Your task to perform on an android device: allow cookies in the chrome app Image 0: 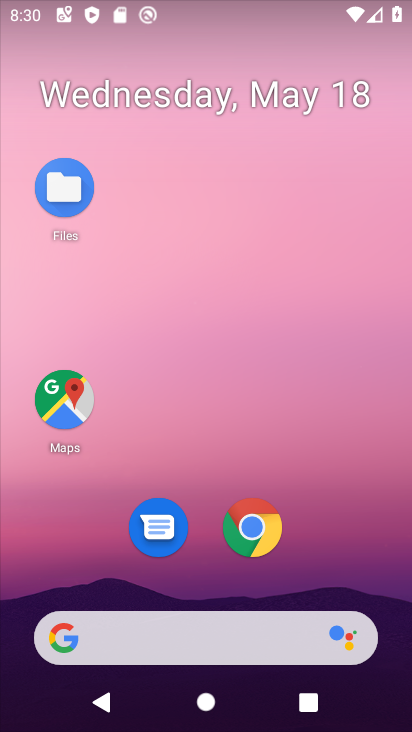
Step 0: drag from (375, 694) to (146, 240)
Your task to perform on an android device: allow cookies in the chrome app Image 1: 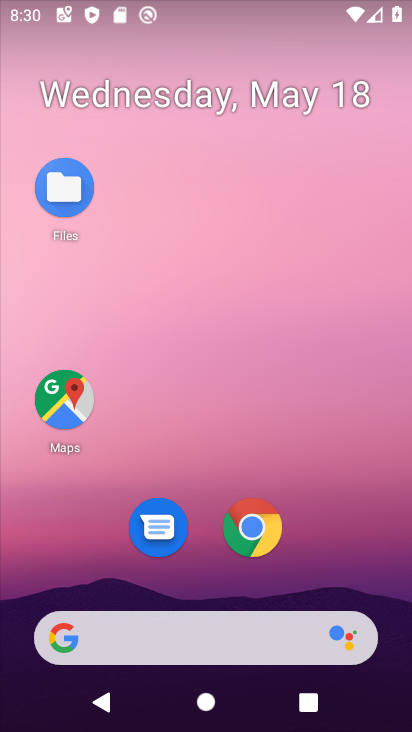
Step 1: drag from (360, 651) to (206, 6)
Your task to perform on an android device: allow cookies in the chrome app Image 2: 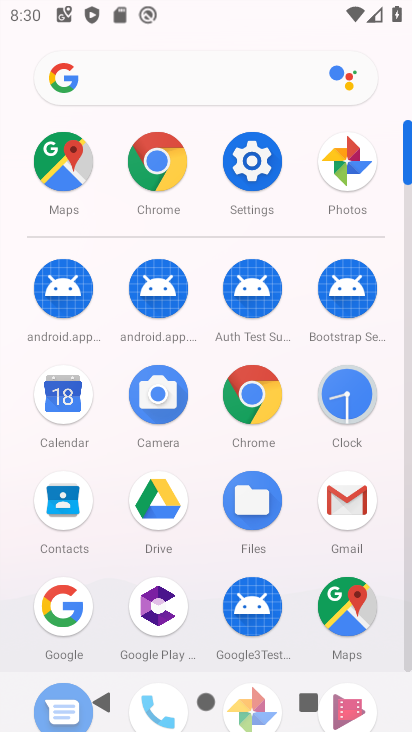
Step 2: click (150, 163)
Your task to perform on an android device: allow cookies in the chrome app Image 3: 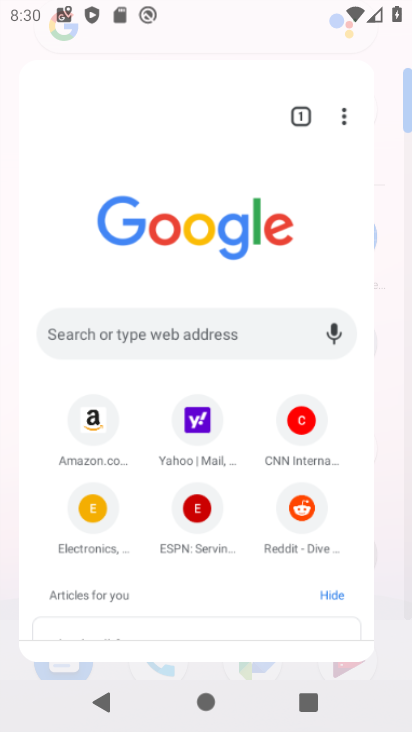
Step 3: click (151, 162)
Your task to perform on an android device: allow cookies in the chrome app Image 4: 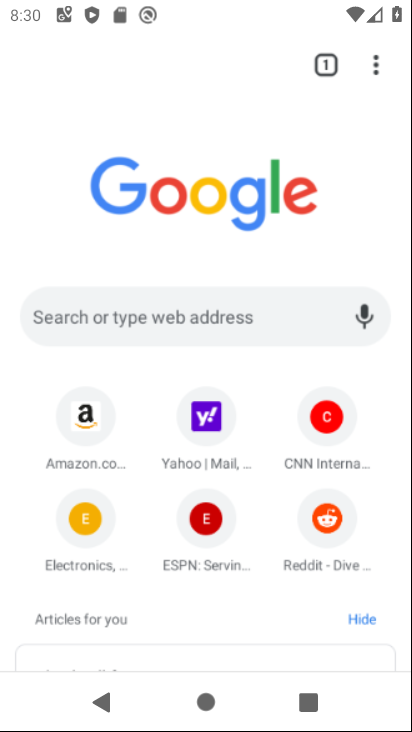
Step 4: click (152, 162)
Your task to perform on an android device: allow cookies in the chrome app Image 5: 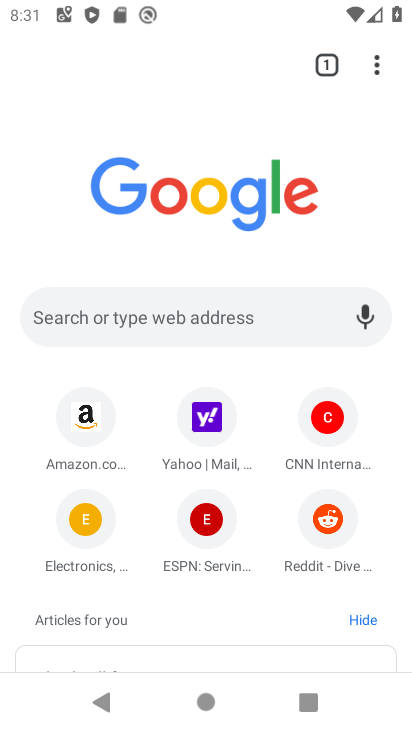
Step 5: click (375, 61)
Your task to perform on an android device: allow cookies in the chrome app Image 6: 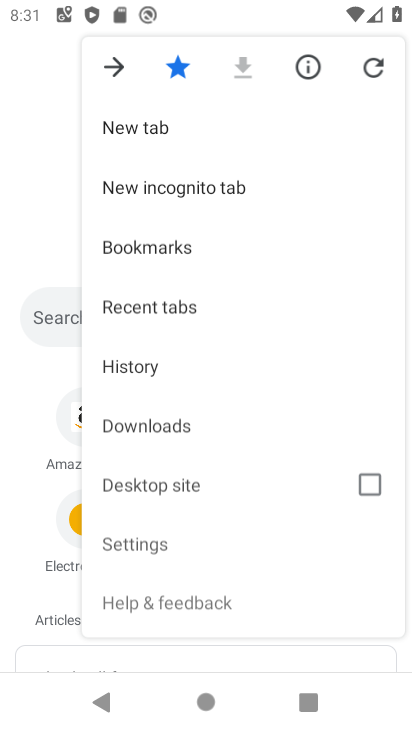
Step 6: click (375, 61)
Your task to perform on an android device: allow cookies in the chrome app Image 7: 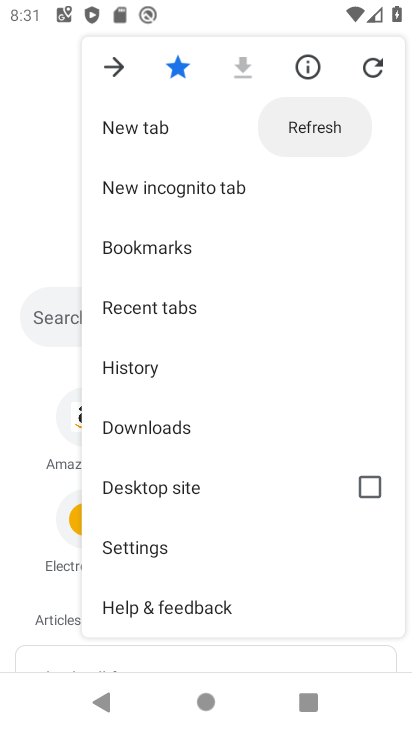
Step 7: click (376, 56)
Your task to perform on an android device: allow cookies in the chrome app Image 8: 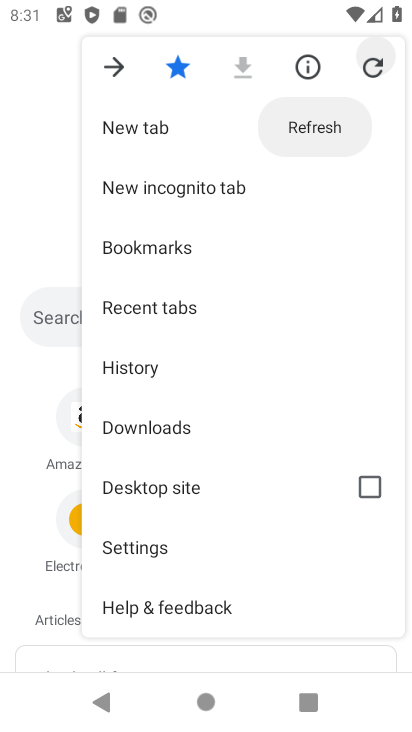
Step 8: drag from (376, 55) to (189, 524)
Your task to perform on an android device: allow cookies in the chrome app Image 9: 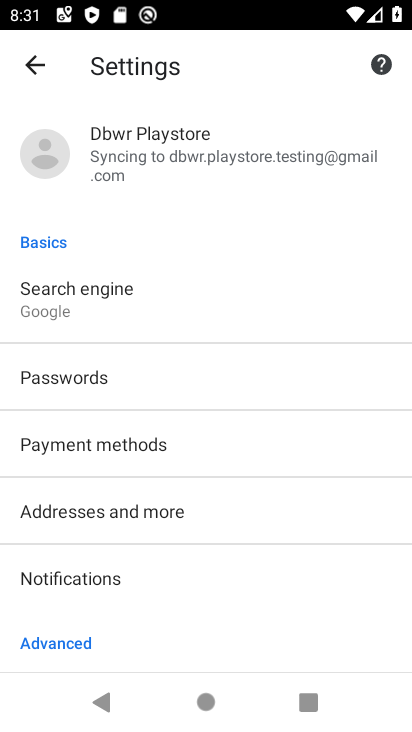
Step 9: drag from (124, 461) to (152, 201)
Your task to perform on an android device: allow cookies in the chrome app Image 10: 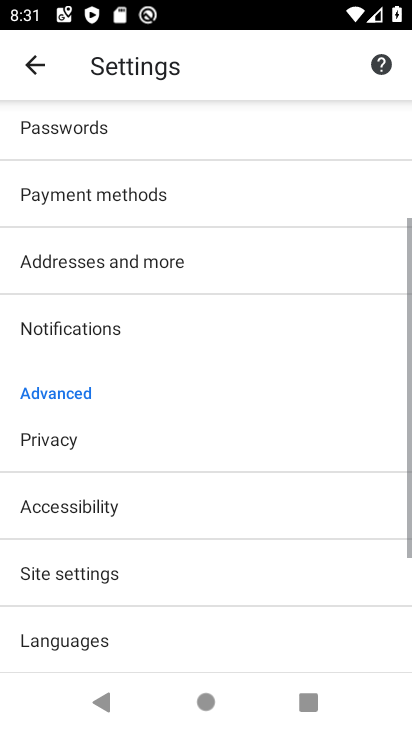
Step 10: drag from (149, 418) to (188, 93)
Your task to perform on an android device: allow cookies in the chrome app Image 11: 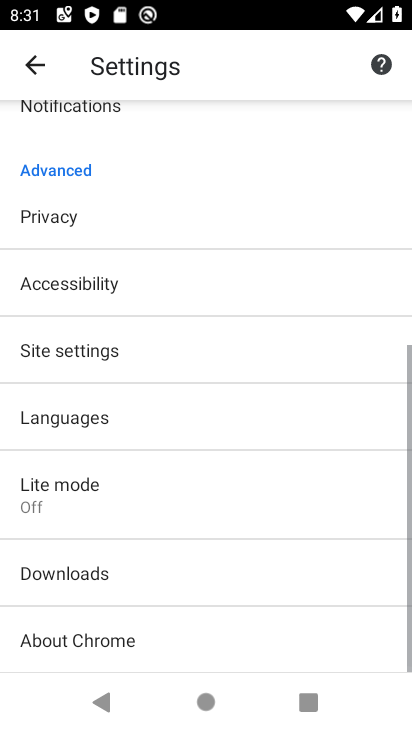
Step 11: drag from (169, 429) to (205, 198)
Your task to perform on an android device: allow cookies in the chrome app Image 12: 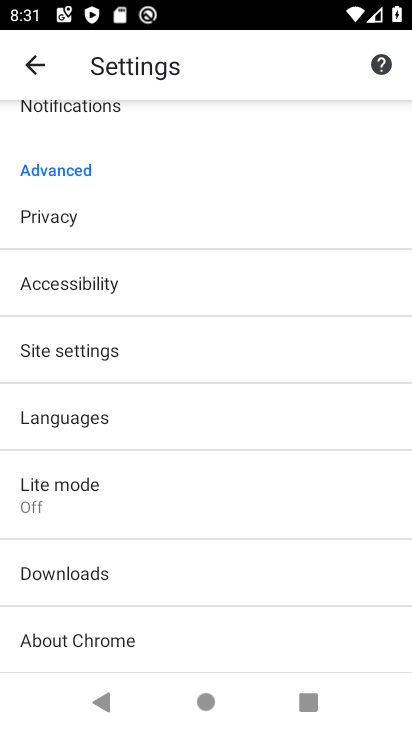
Step 12: click (69, 347)
Your task to perform on an android device: allow cookies in the chrome app Image 13: 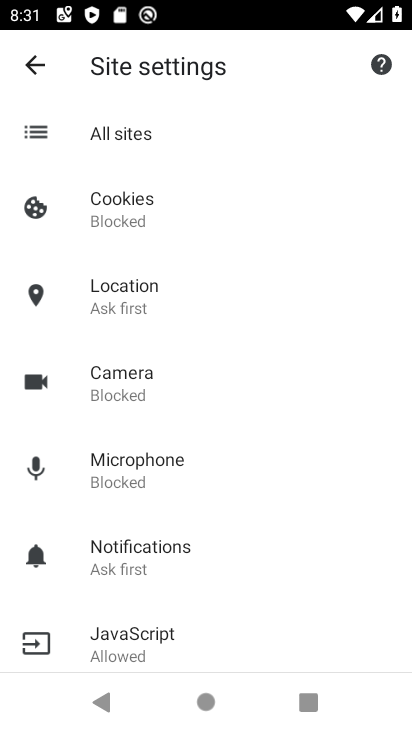
Step 13: click (118, 205)
Your task to perform on an android device: allow cookies in the chrome app Image 14: 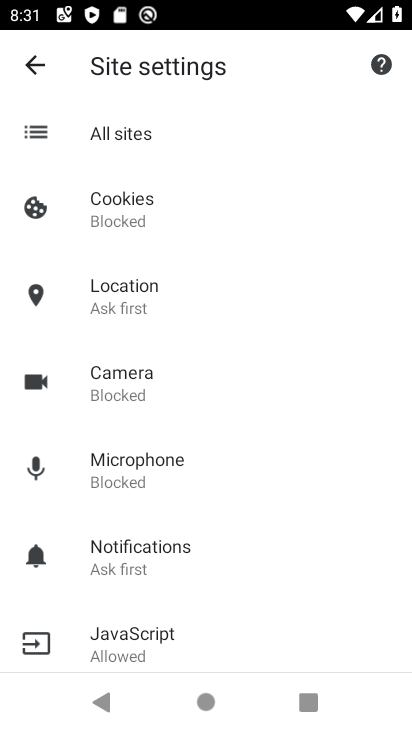
Step 14: click (118, 204)
Your task to perform on an android device: allow cookies in the chrome app Image 15: 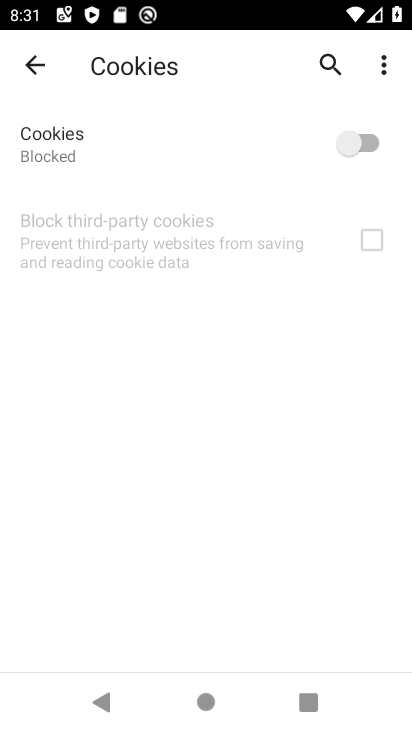
Step 15: click (350, 144)
Your task to perform on an android device: allow cookies in the chrome app Image 16: 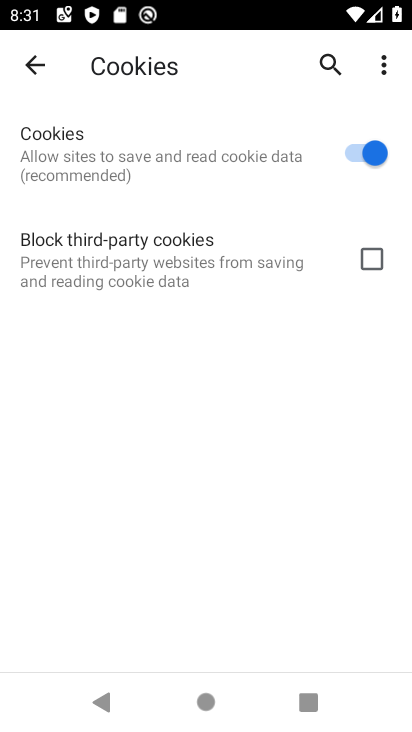
Step 16: task complete